Your task to perform on an android device: create a new album in the google photos Image 0: 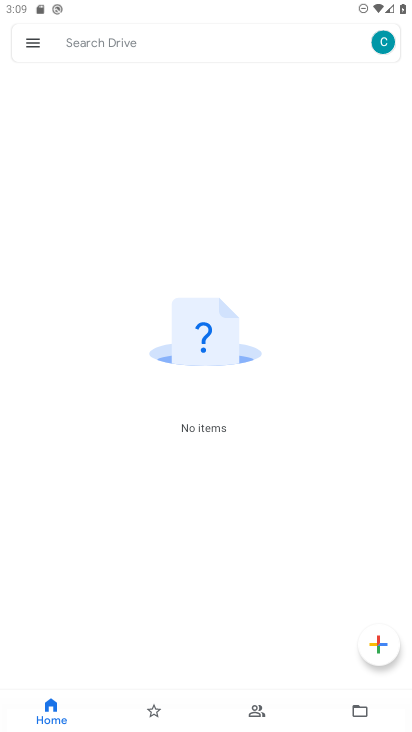
Step 0: press home button
Your task to perform on an android device: create a new album in the google photos Image 1: 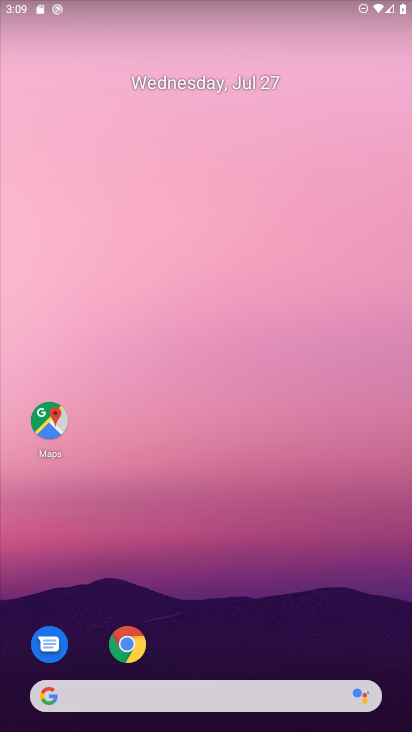
Step 1: drag from (186, 520) to (193, 346)
Your task to perform on an android device: create a new album in the google photos Image 2: 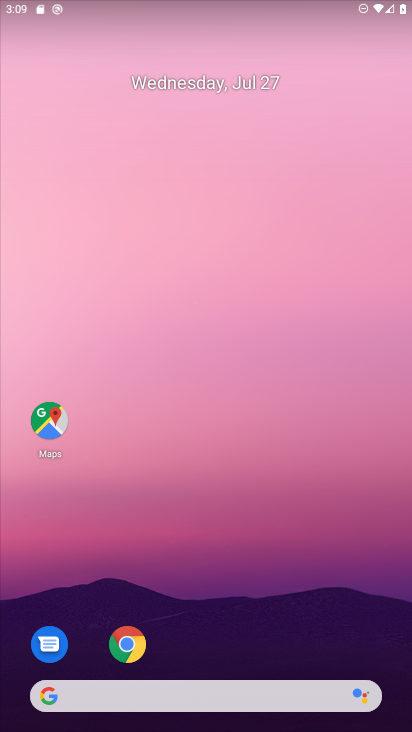
Step 2: drag from (197, 636) to (253, 89)
Your task to perform on an android device: create a new album in the google photos Image 3: 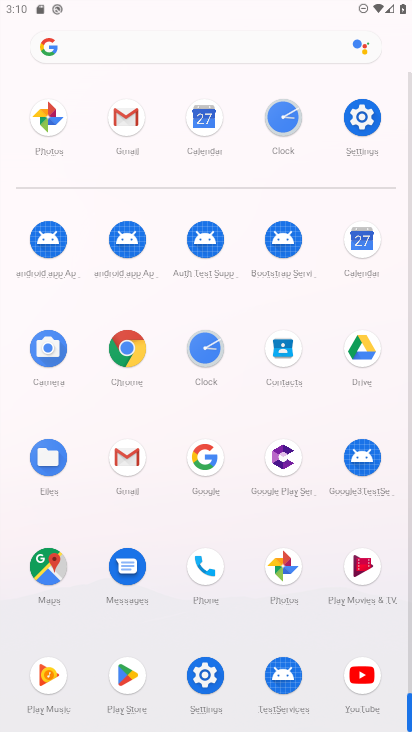
Step 3: click (290, 573)
Your task to perform on an android device: create a new album in the google photos Image 4: 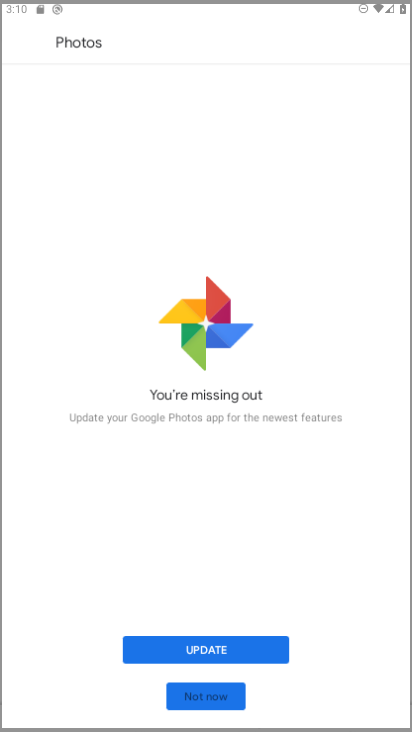
Step 4: click (341, 398)
Your task to perform on an android device: create a new album in the google photos Image 5: 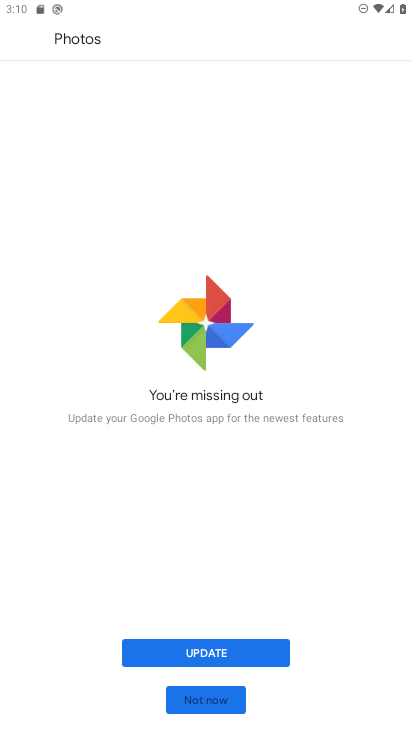
Step 5: click (210, 696)
Your task to perform on an android device: create a new album in the google photos Image 6: 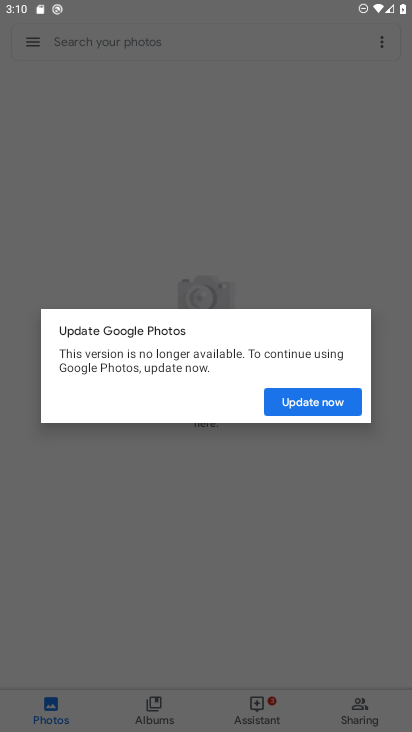
Step 6: click (313, 403)
Your task to perform on an android device: create a new album in the google photos Image 7: 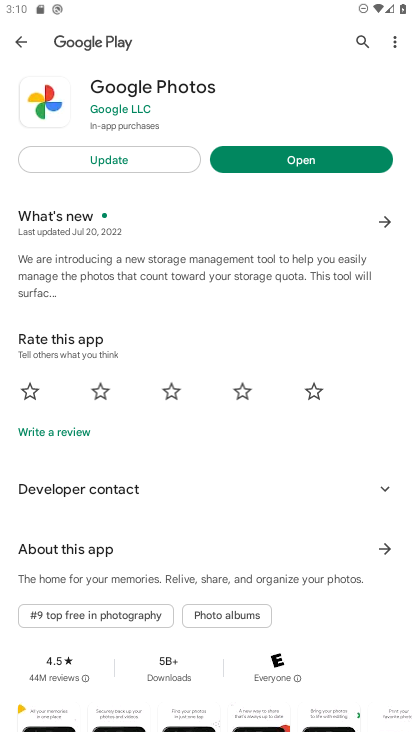
Step 7: click (298, 162)
Your task to perform on an android device: create a new album in the google photos Image 8: 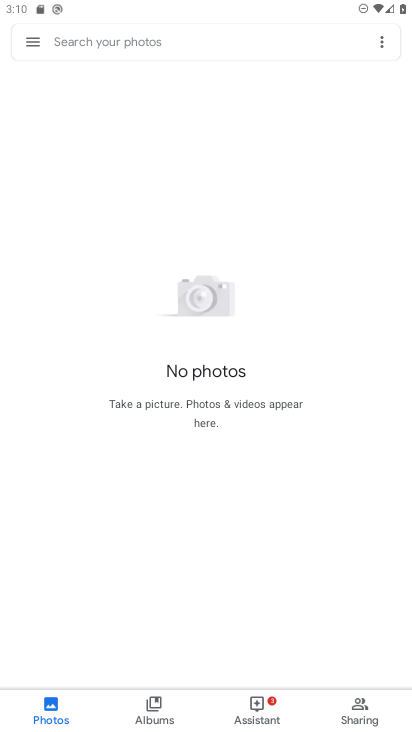
Step 8: click (147, 714)
Your task to perform on an android device: create a new album in the google photos Image 9: 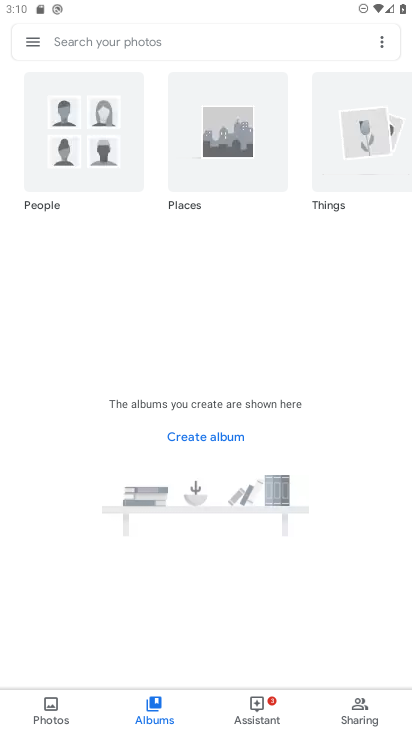
Step 9: click (216, 443)
Your task to perform on an android device: create a new album in the google photos Image 10: 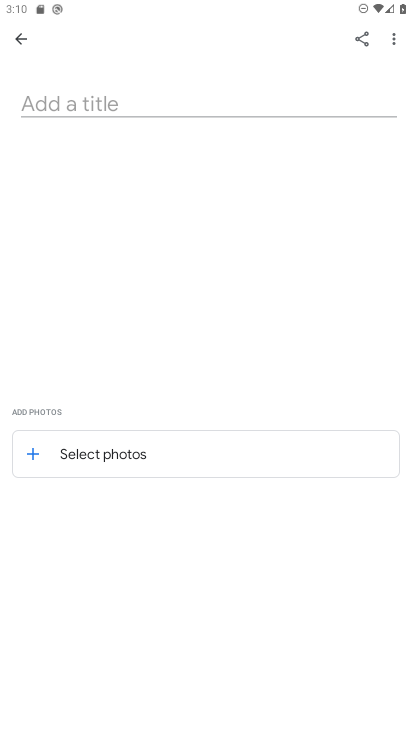
Step 10: click (48, 446)
Your task to perform on an android device: create a new album in the google photos Image 11: 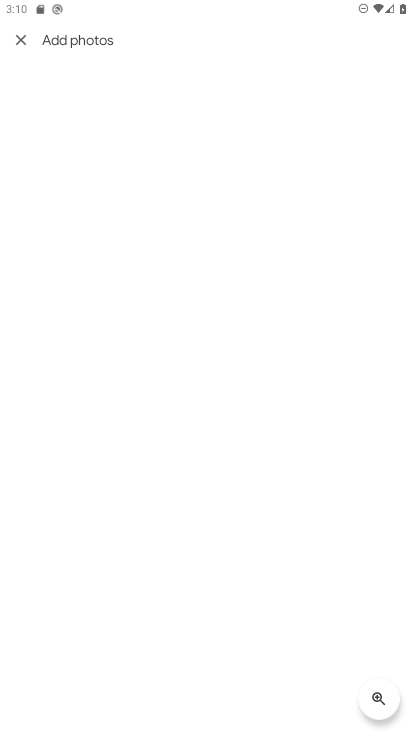
Step 11: task complete